Your task to perform on an android device: allow cookies in the chrome app Image 0: 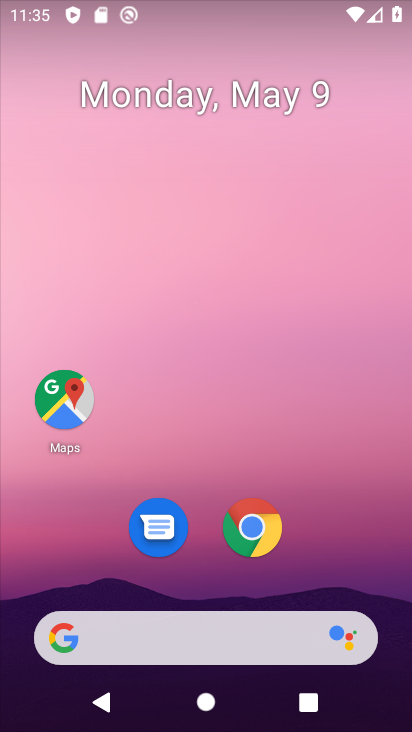
Step 0: click (266, 533)
Your task to perform on an android device: allow cookies in the chrome app Image 1: 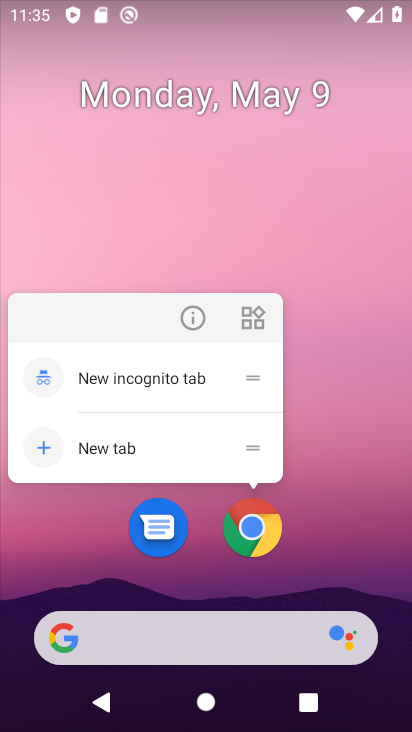
Step 1: click (264, 521)
Your task to perform on an android device: allow cookies in the chrome app Image 2: 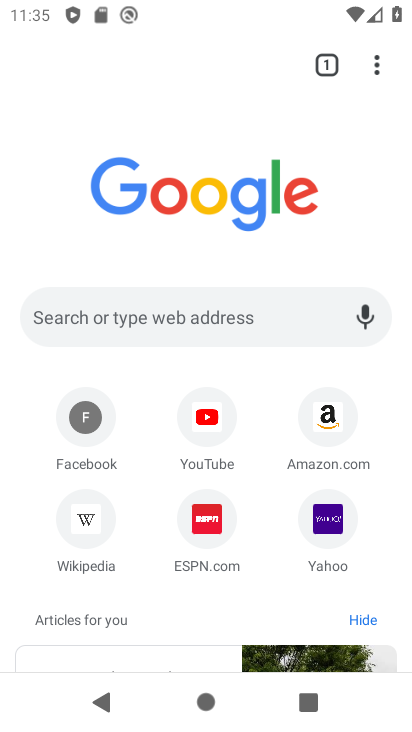
Step 2: click (380, 66)
Your task to perform on an android device: allow cookies in the chrome app Image 3: 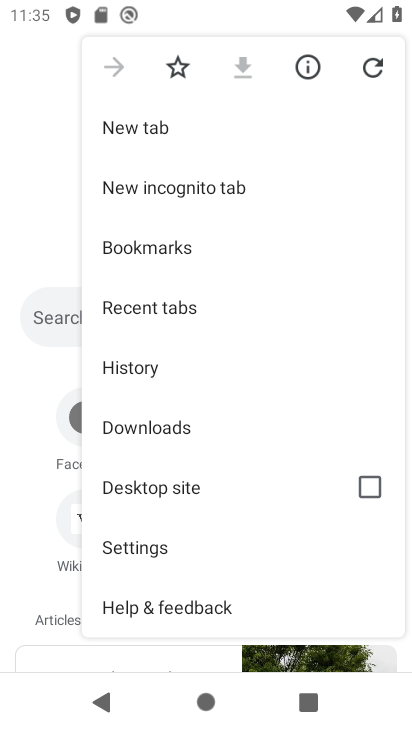
Step 3: click (133, 540)
Your task to perform on an android device: allow cookies in the chrome app Image 4: 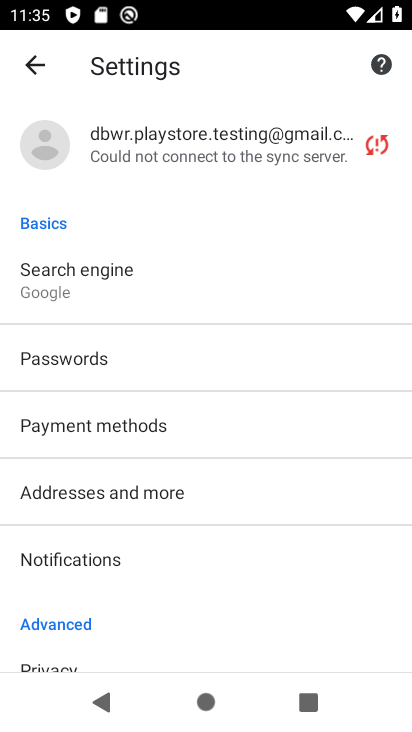
Step 4: click (85, 664)
Your task to perform on an android device: allow cookies in the chrome app Image 5: 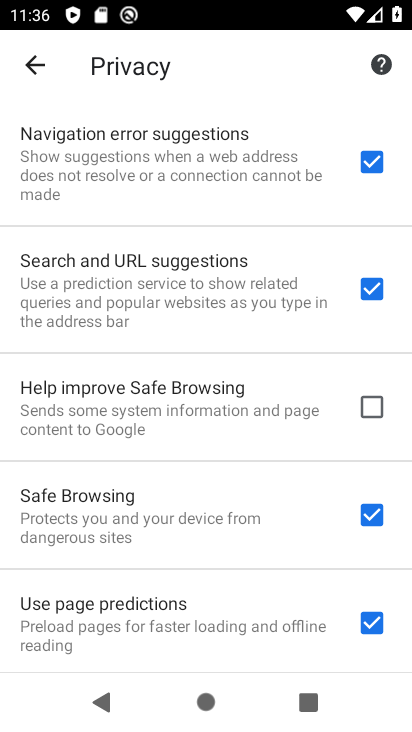
Step 5: drag from (102, 598) to (77, 24)
Your task to perform on an android device: allow cookies in the chrome app Image 6: 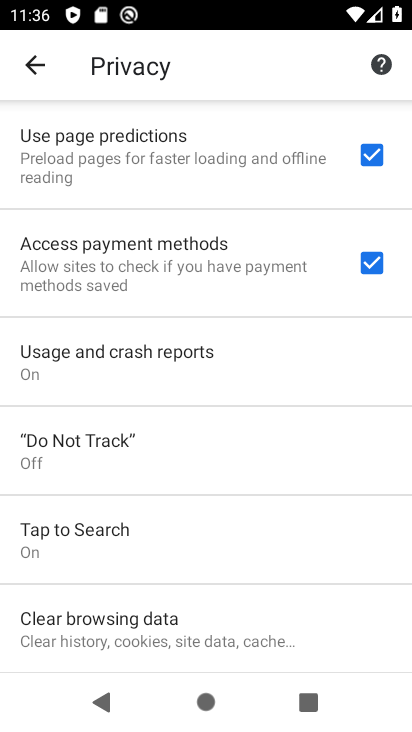
Step 6: drag from (149, 526) to (129, 277)
Your task to perform on an android device: allow cookies in the chrome app Image 7: 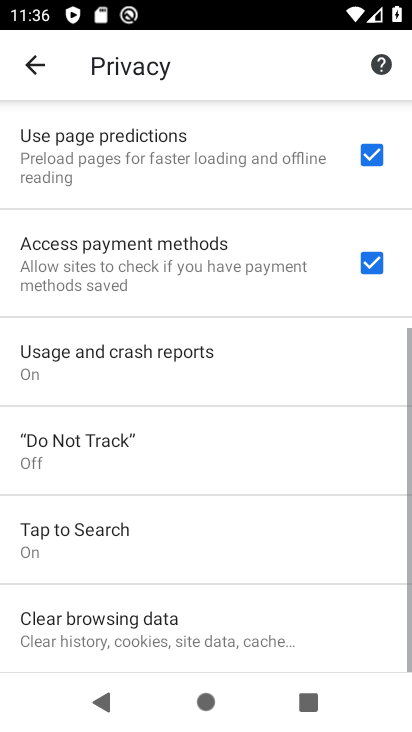
Step 7: click (138, 622)
Your task to perform on an android device: allow cookies in the chrome app Image 8: 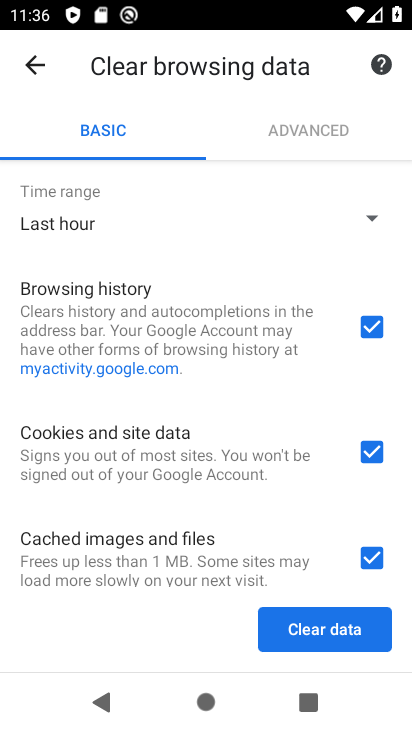
Step 8: click (333, 626)
Your task to perform on an android device: allow cookies in the chrome app Image 9: 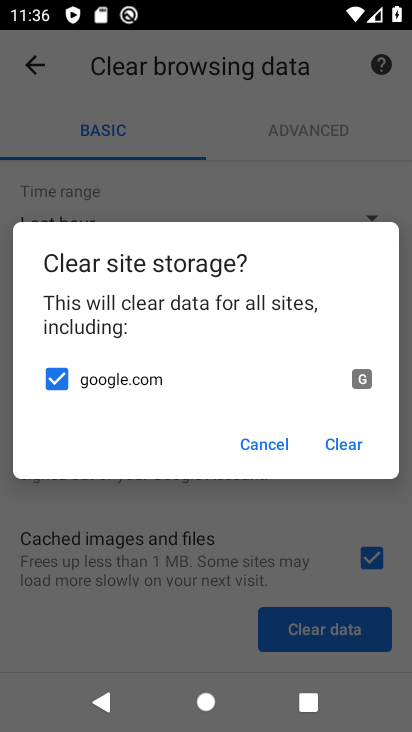
Step 9: click (359, 439)
Your task to perform on an android device: allow cookies in the chrome app Image 10: 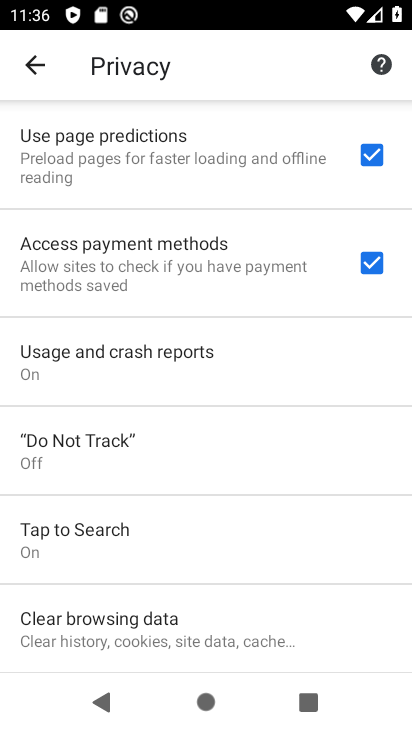
Step 10: task complete